Your task to perform on an android device: Search for vegetarian restaurants on Maps Image 0: 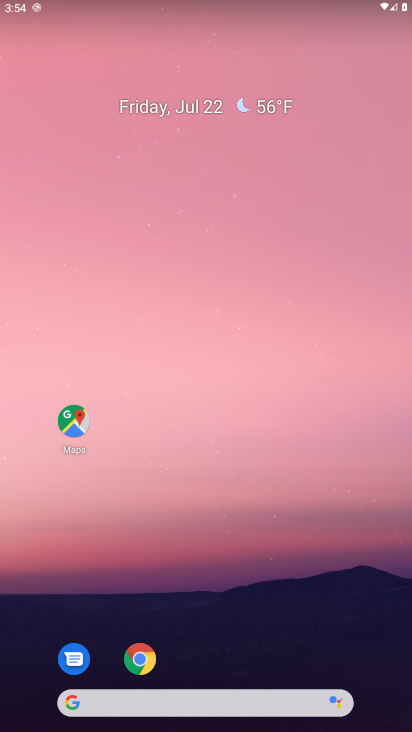
Step 0: click (84, 412)
Your task to perform on an android device: Search for vegetarian restaurants on Maps Image 1: 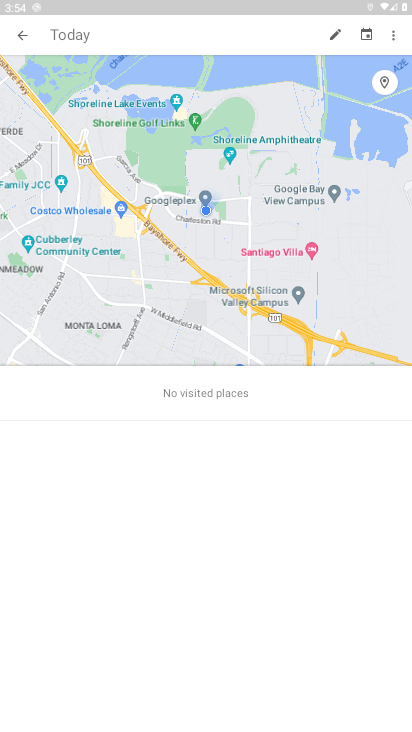
Step 1: click (164, 35)
Your task to perform on an android device: Search for vegetarian restaurants on Maps Image 2: 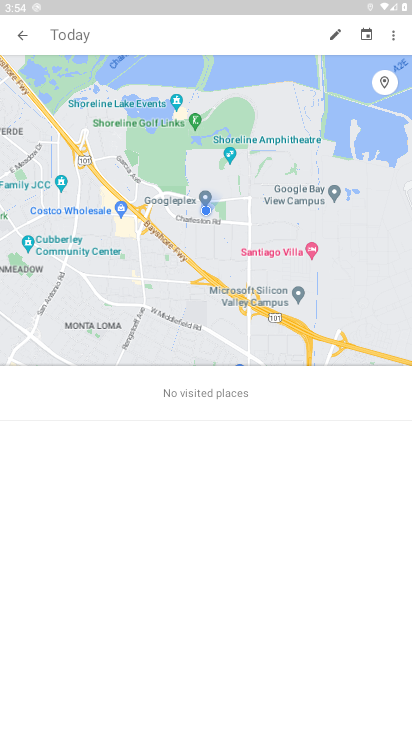
Step 2: click (14, 34)
Your task to perform on an android device: Search for vegetarian restaurants on Maps Image 3: 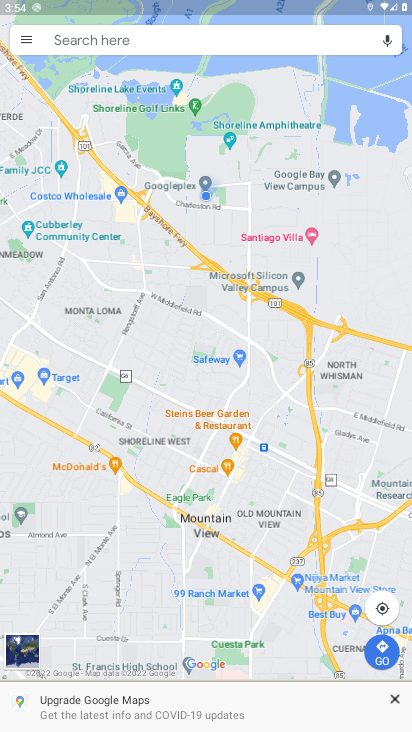
Step 3: click (119, 39)
Your task to perform on an android device: Search for vegetarian restaurants on Maps Image 4: 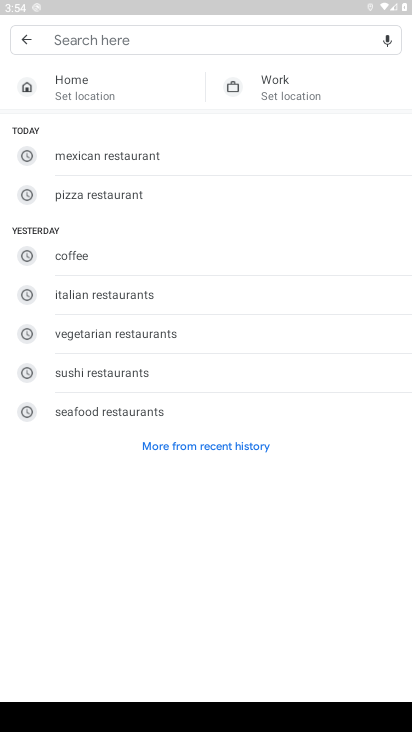
Step 4: click (145, 337)
Your task to perform on an android device: Search for vegetarian restaurants on Maps Image 5: 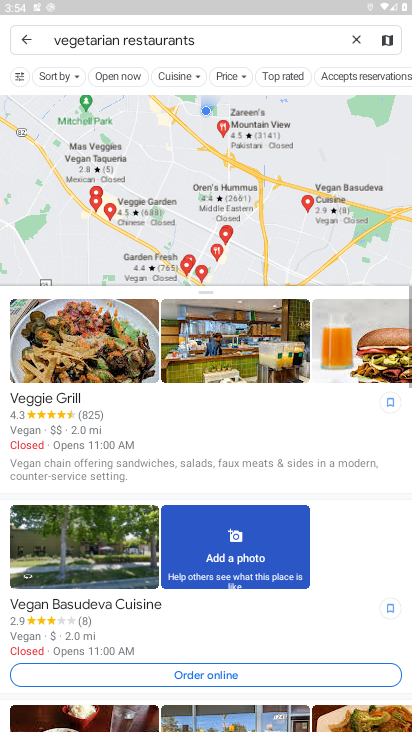
Step 5: task complete